Your task to perform on an android device: change alarm snooze length Image 0: 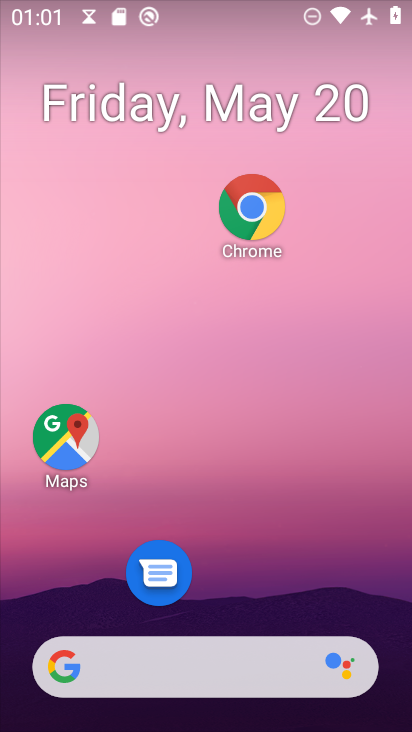
Step 0: drag from (251, 597) to (306, 60)
Your task to perform on an android device: change alarm snooze length Image 1: 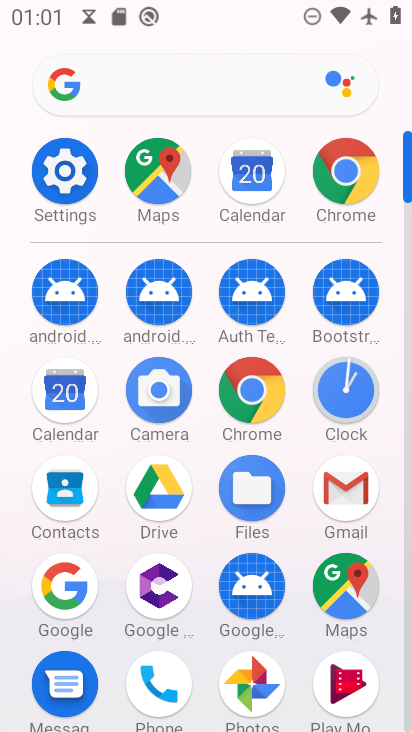
Step 1: click (348, 386)
Your task to perform on an android device: change alarm snooze length Image 2: 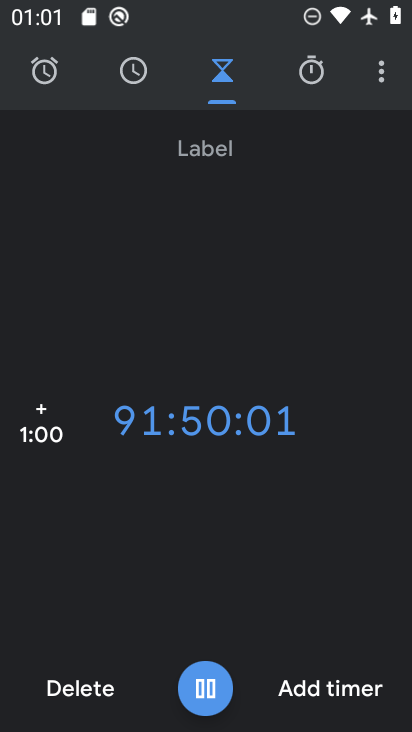
Step 2: click (383, 81)
Your task to perform on an android device: change alarm snooze length Image 3: 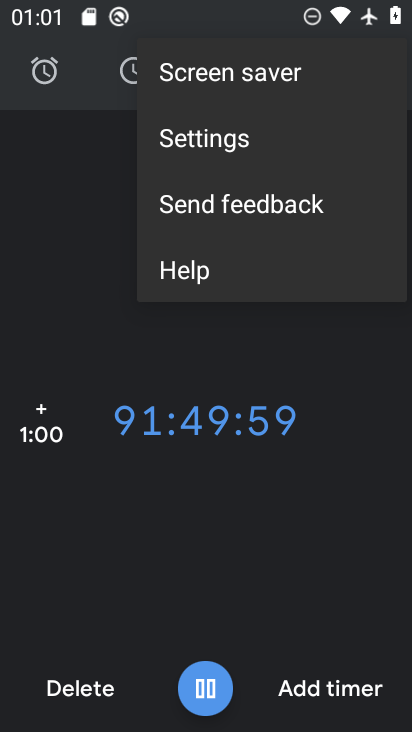
Step 3: click (234, 144)
Your task to perform on an android device: change alarm snooze length Image 4: 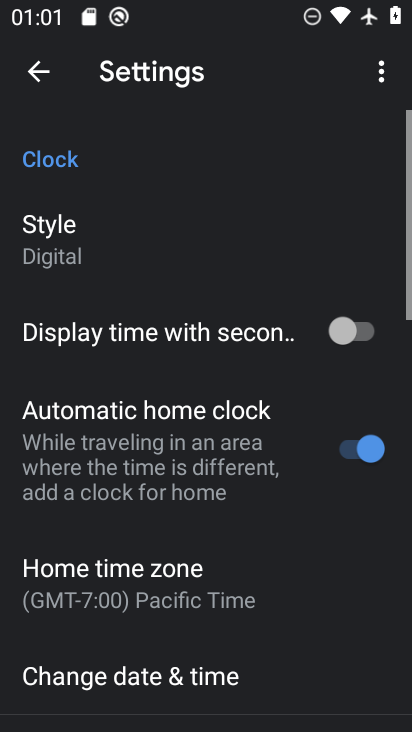
Step 4: drag from (192, 606) to (212, 330)
Your task to perform on an android device: change alarm snooze length Image 5: 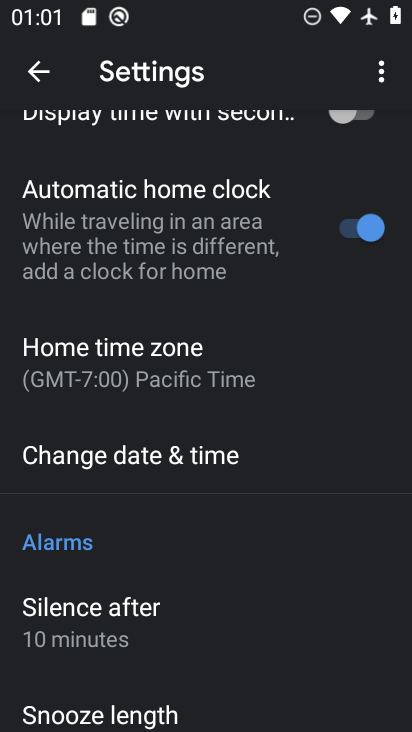
Step 5: drag from (146, 661) to (195, 390)
Your task to perform on an android device: change alarm snooze length Image 6: 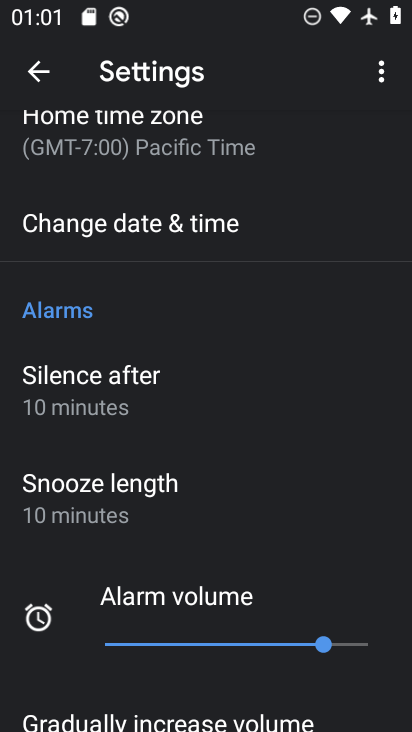
Step 6: click (106, 501)
Your task to perform on an android device: change alarm snooze length Image 7: 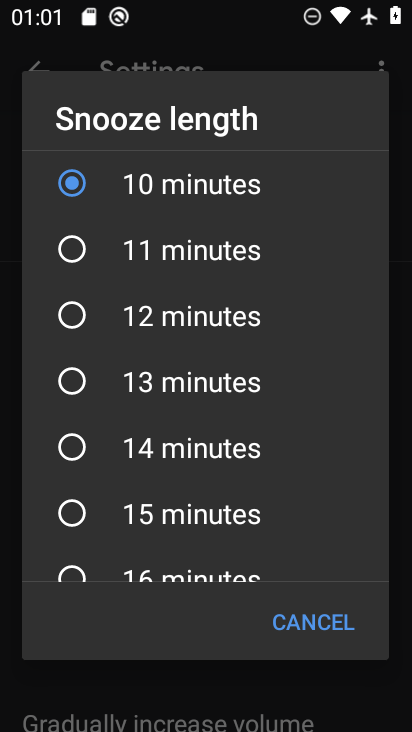
Step 7: click (181, 255)
Your task to perform on an android device: change alarm snooze length Image 8: 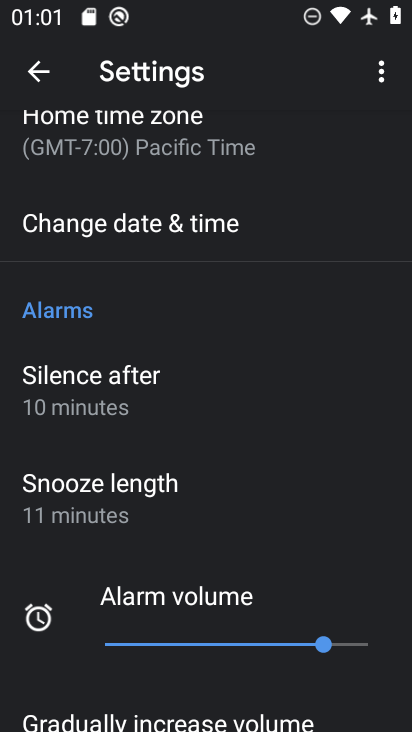
Step 8: click (139, 499)
Your task to perform on an android device: change alarm snooze length Image 9: 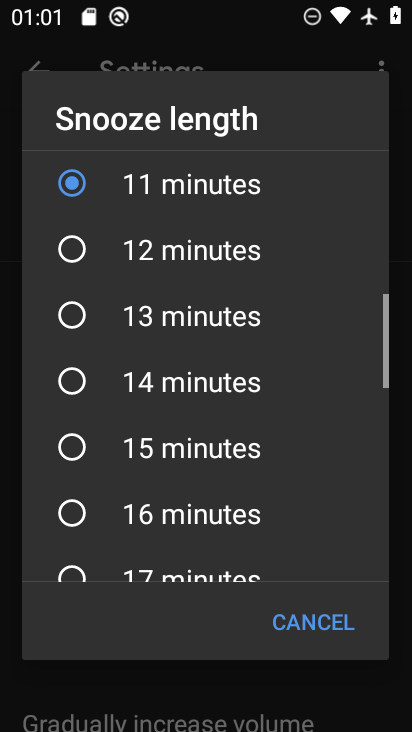
Step 9: click (134, 426)
Your task to perform on an android device: change alarm snooze length Image 10: 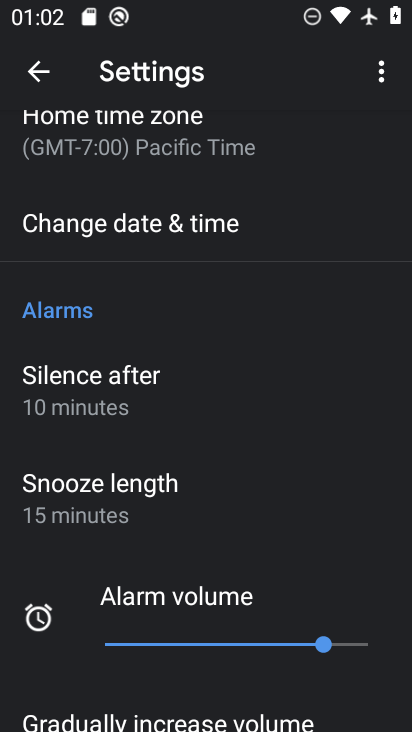
Step 10: task complete